Your task to perform on an android device: Turn off the flashlight Image 0: 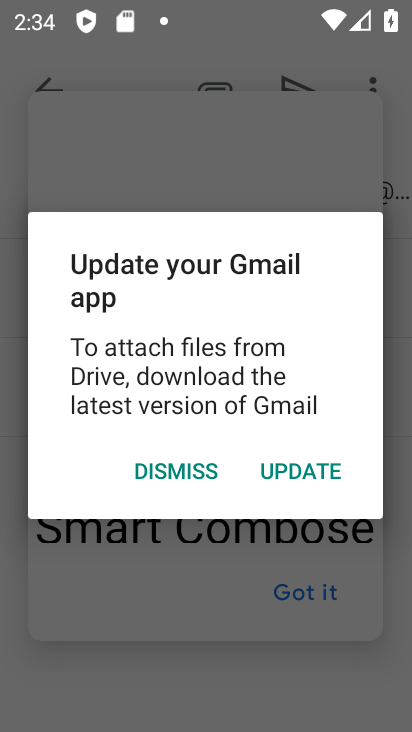
Step 0: press home button
Your task to perform on an android device: Turn off the flashlight Image 1: 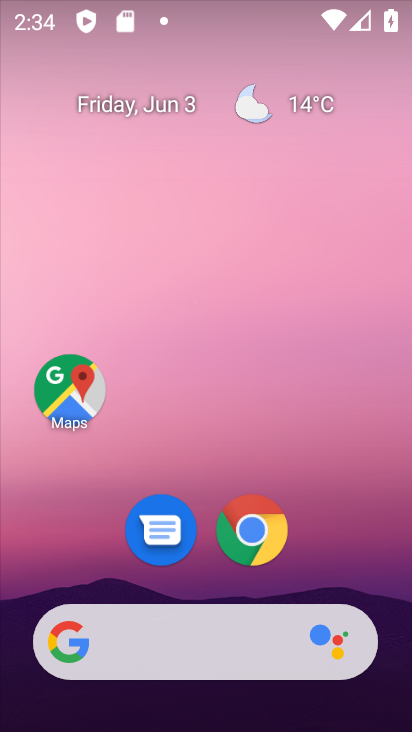
Step 1: task complete